Your task to perform on an android device: open device folders in google photos Image 0: 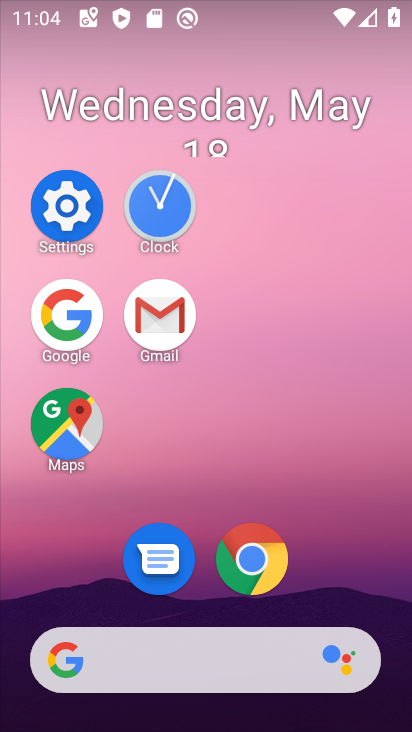
Step 0: drag from (383, 584) to (380, 166)
Your task to perform on an android device: open device folders in google photos Image 1: 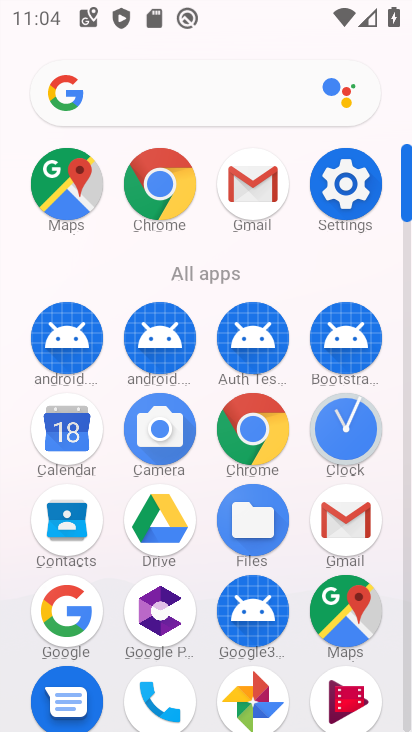
Step 1: drag from (259, 687) to (224, 284)
Your task to perform on an android device: open device folders in google photos Image 2: 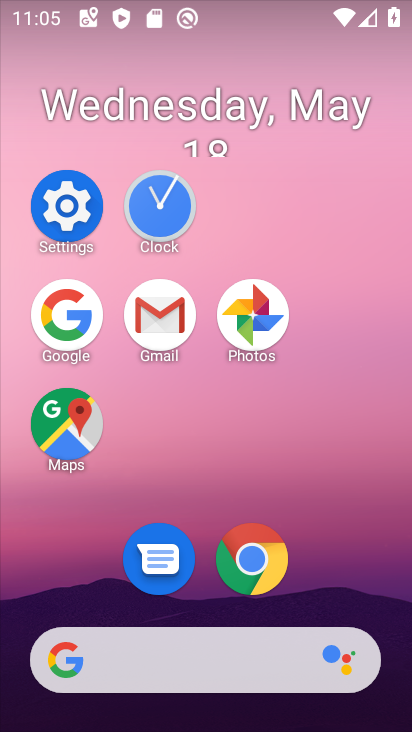
Step 2: click (254, 311)
Your task to perform on an android device: open device folders in google photos Image 3: 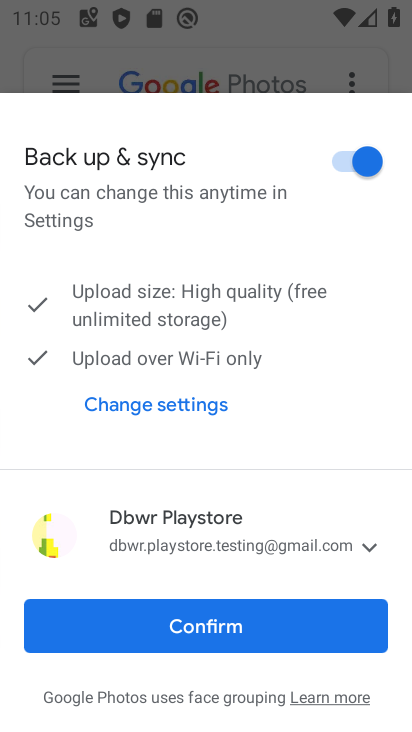
Step 3: click (265, 615)
Your task to perform on an android device: open device folders in google photos Image 4: 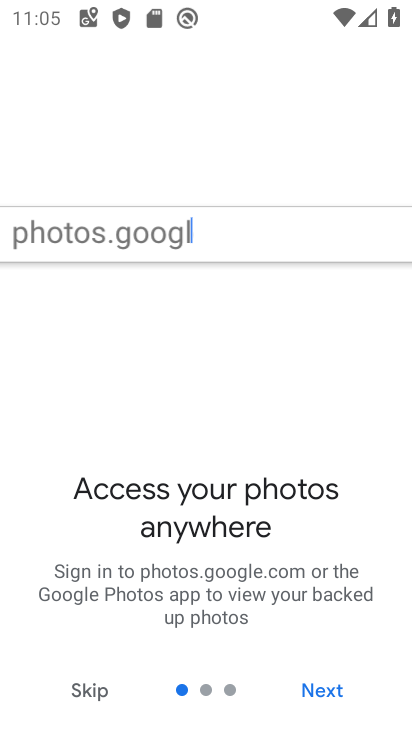
Step 4: click (324, 684)
Your task to perform on an android device: open device folders in google photos Image 5: 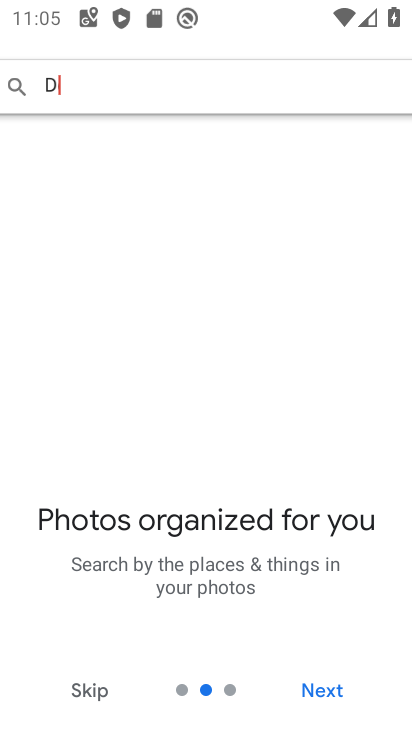
Step 5: click (324, 684)
Your task to perform on an android device: open device folders in google photos Image 6: 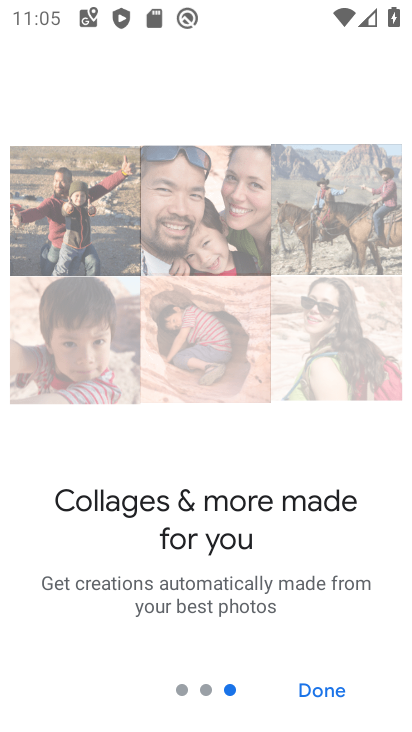
Step 6: click (324, 684)
Your task to perform on an android device: open device folders in google photos Image 7: 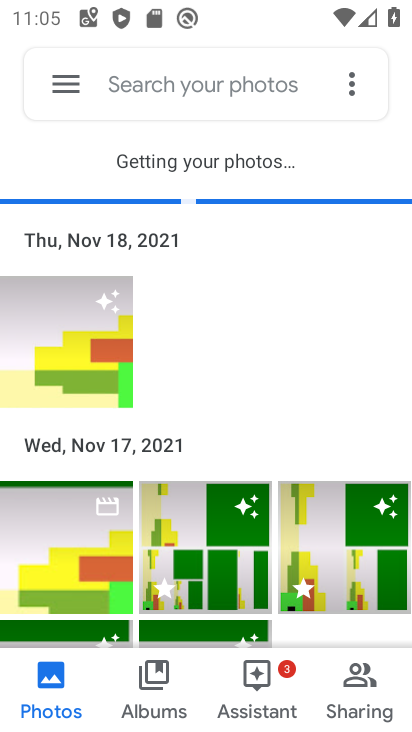
Step 7: click (63, 70)
Your task to perform on an android device: open device folders in google photos Image 8: 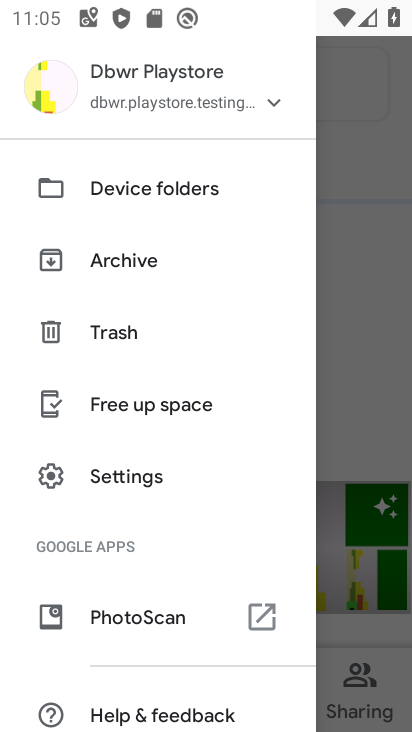
Step 8: click (187, 190)
Your task to perform on an android device: open device folders in google photos Image 9: 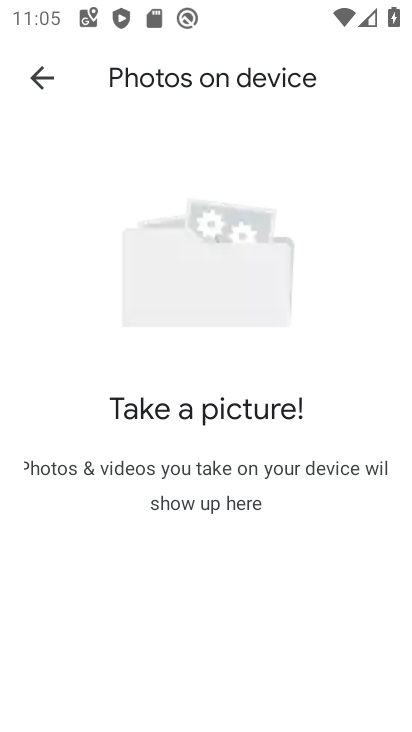
Step 9: task complete